Your task to perform on an android device: Go to wifi settings Image 0: 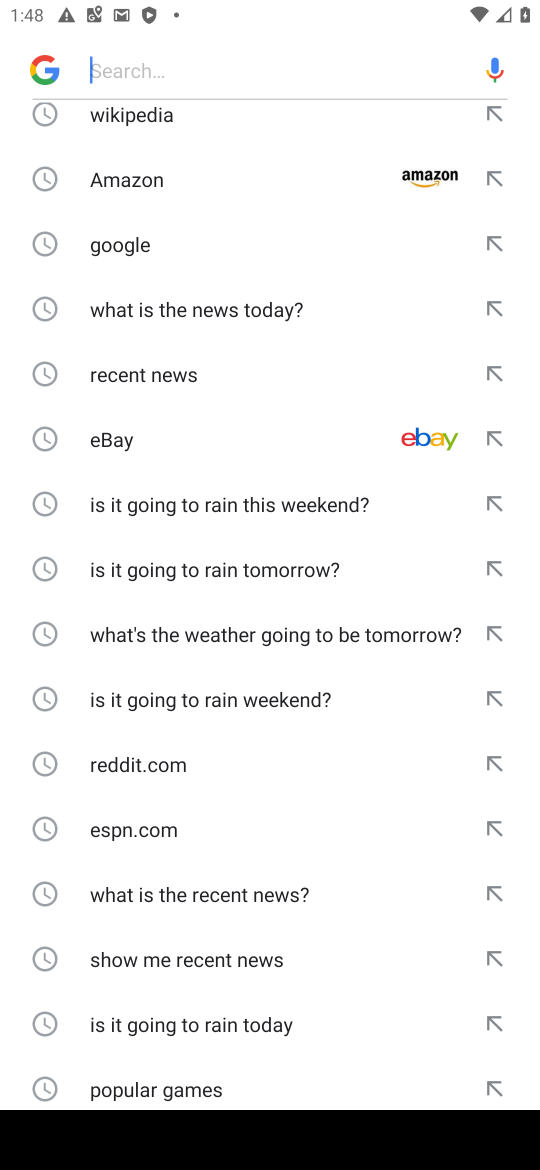
Step 0: press home button
Your task to perform on an android device: Go to wifi settings Image 1: 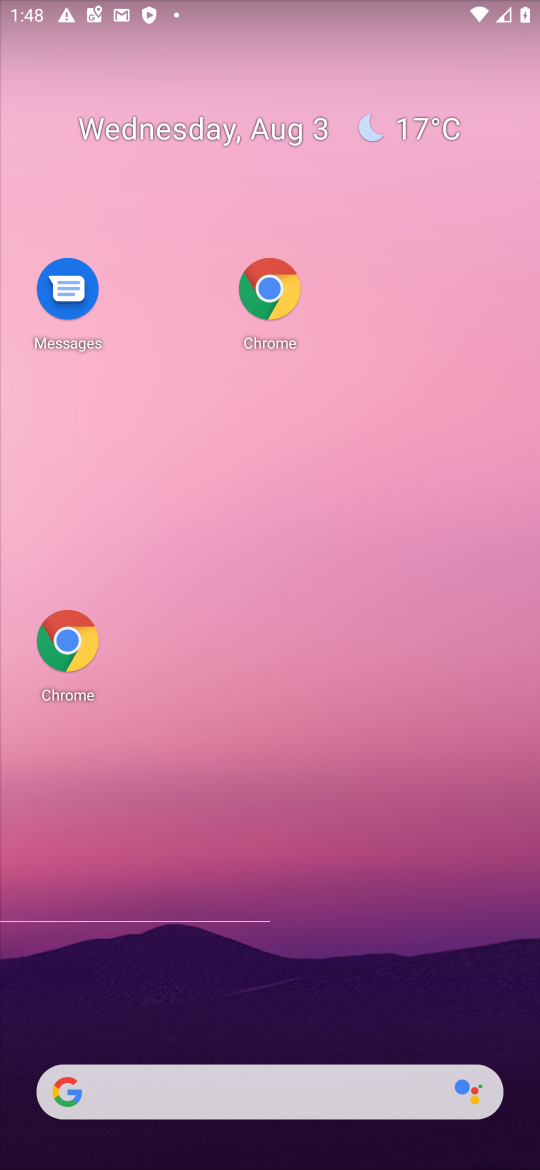
Step 1: drag from (393, 938) to (487, 106)
Your task to perform on an android device: Go to wifi settings Image 2: 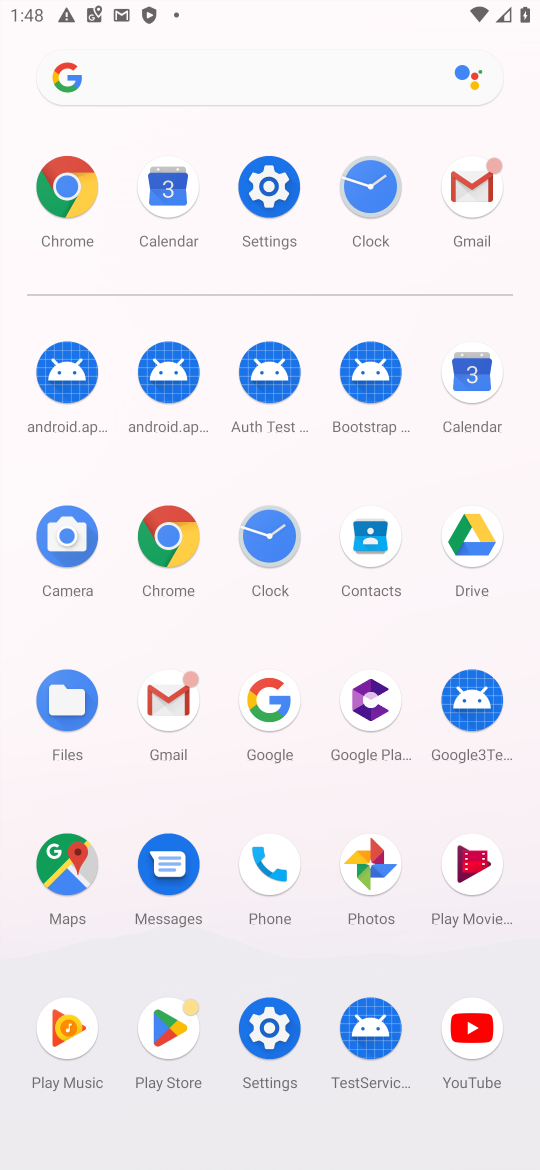
Step 2: click (272, 203)
Your task to perform on an android device: Go to wifi settings Image 3: 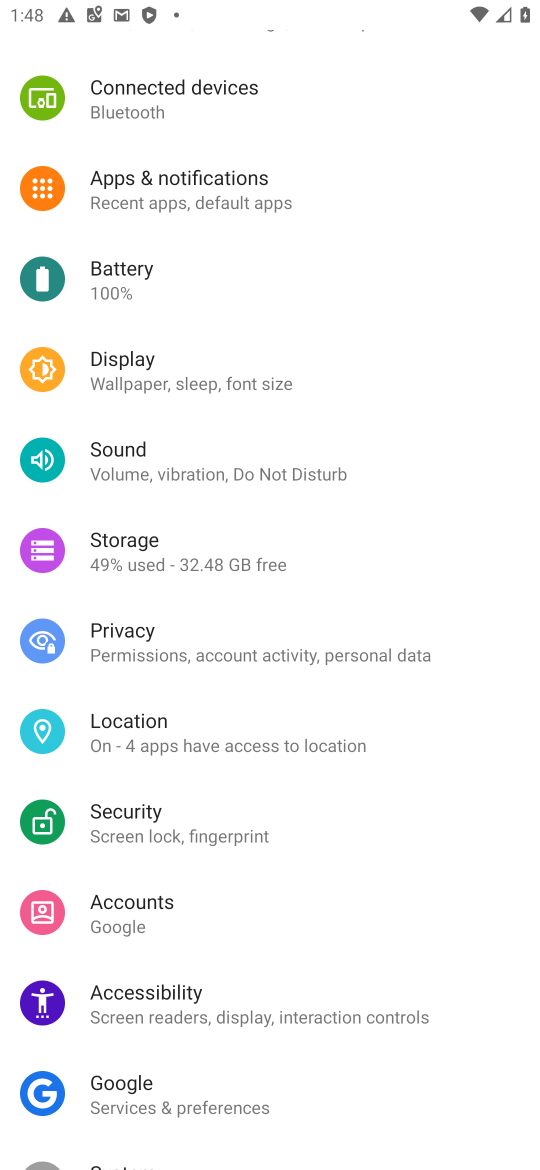
Step 3: drag from (164, 138) to (197, 738)
Your task to perform on an android device: Go to wifi settings Image 4: 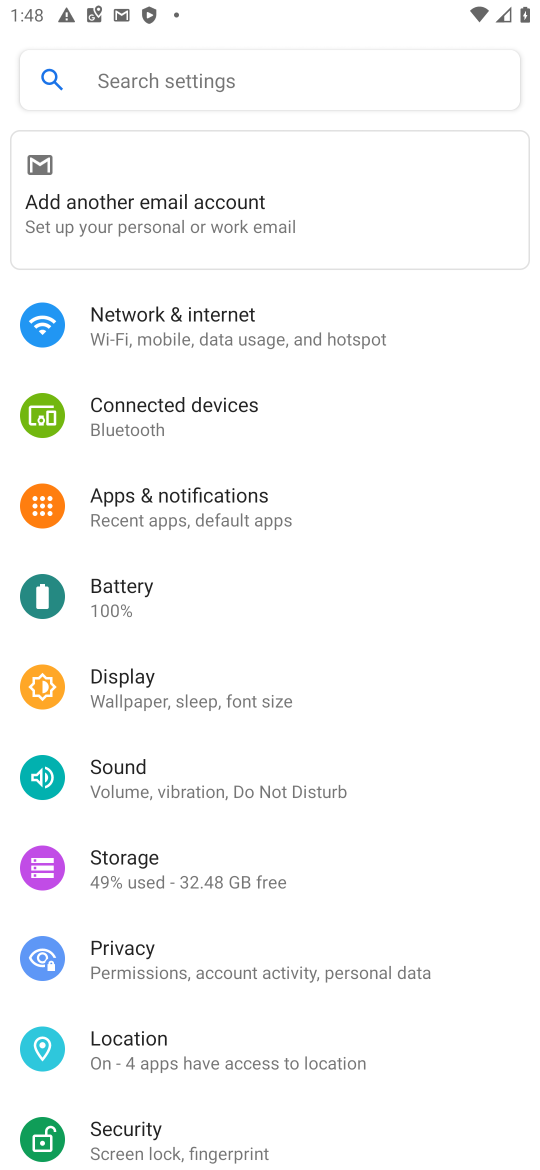
Step 4: click (147, 310)
Your task to perform on an android device: Go to wifi settings Image 5: 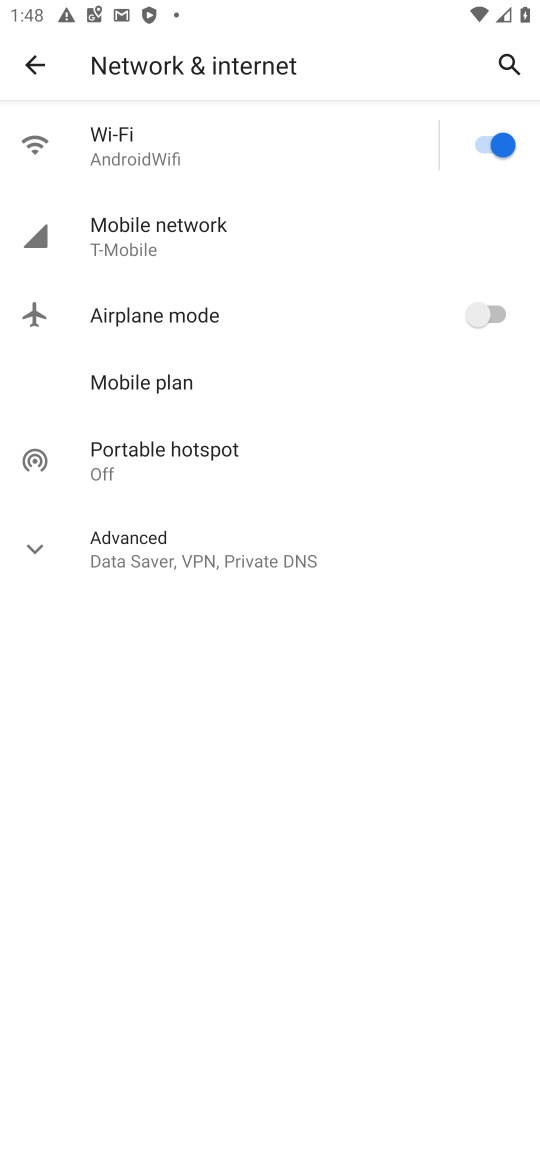
Step 5: click (98, 155)
Your task to perform on an android device: Go to wifi settings Image 6: 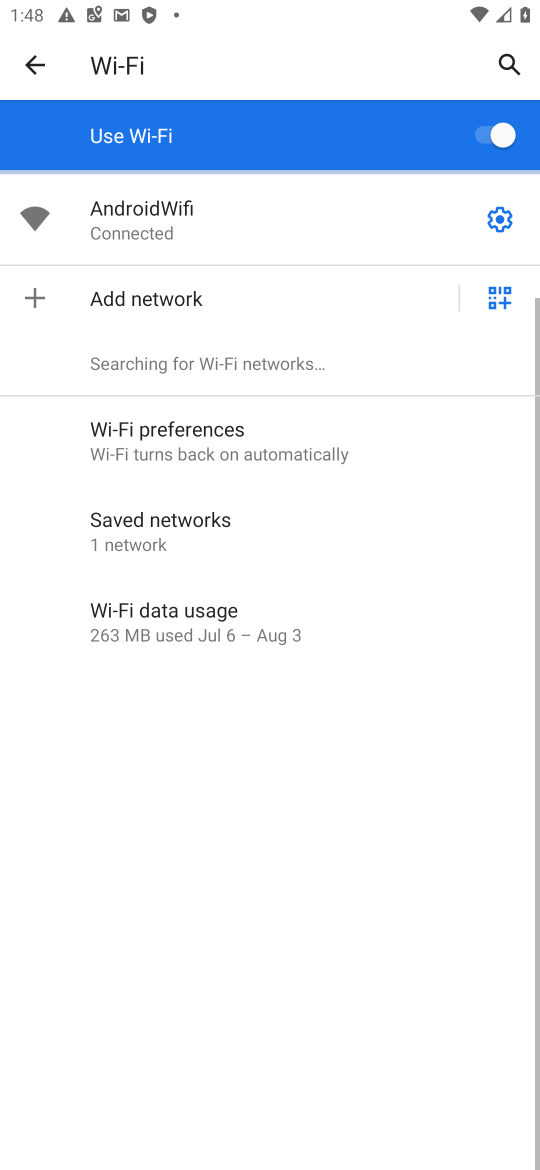
Step 6: task complete